Your task to perform on an android device: turn off javascript in the chrome app Image 0: 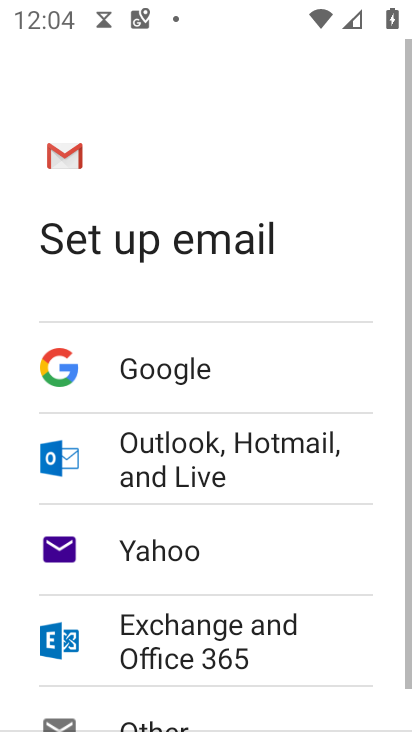
Step 0: press home button
Your task to perform on an android device: turn off javascript in the chrome app Image 1: 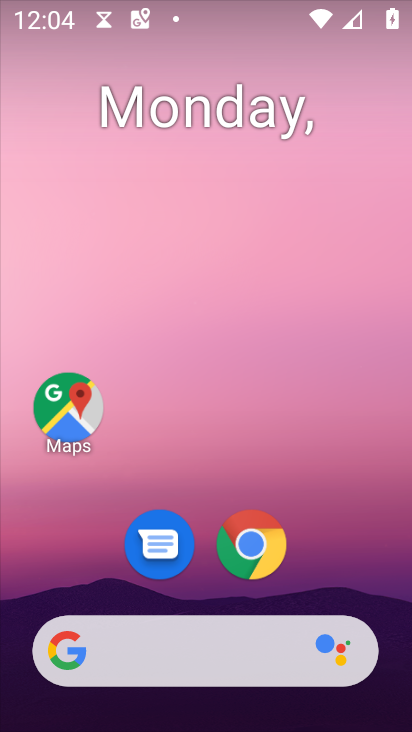
Step 1: click (252, 558)
Your task to perform on an android device: turn off javascript in the chrome app Image 2: 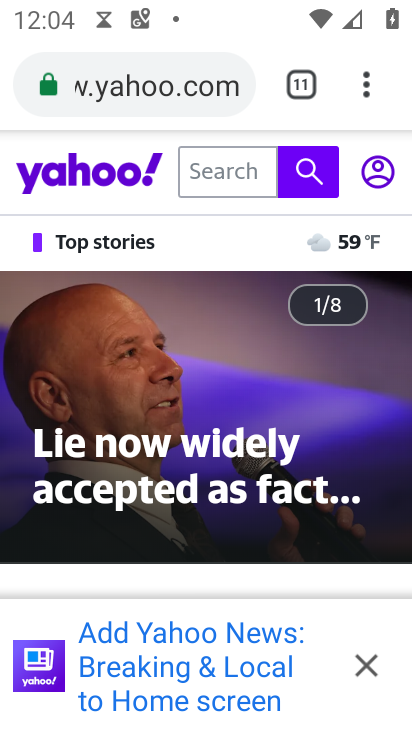
Step 2: click (375, 78)
Your task to perform on an android device: turn off javascript in the chrome app Image 3: 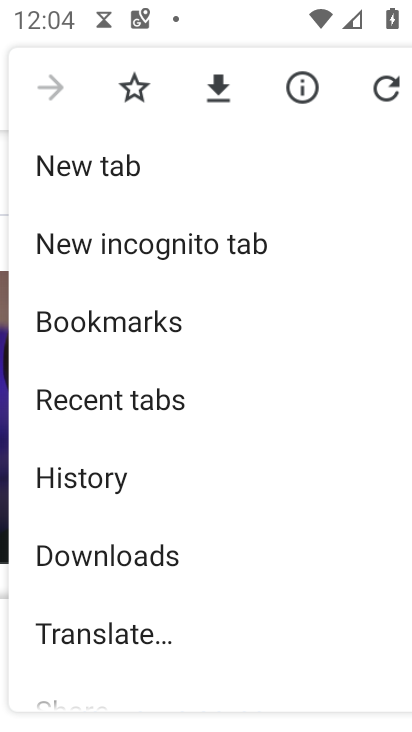
Step 3: drag from (205, 597) to (244, 274)
Your task to perform on an android device: turn off javascript in the chrome app Image 4: 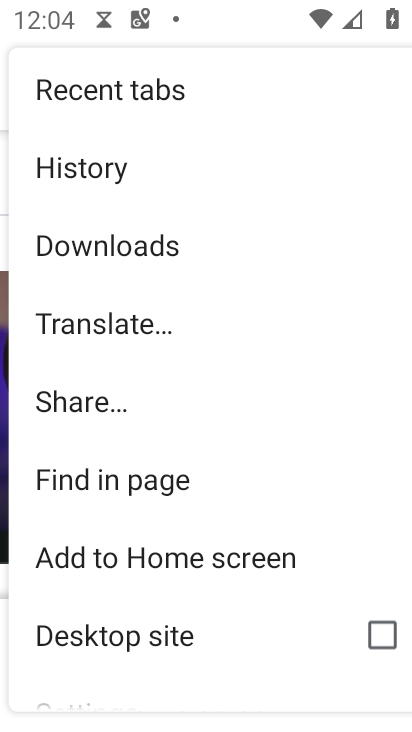
Step 4: drag from (152, 613) to (192, 270)
Your task to perform on an android device: turn off javascript in the chrome app Image 5: 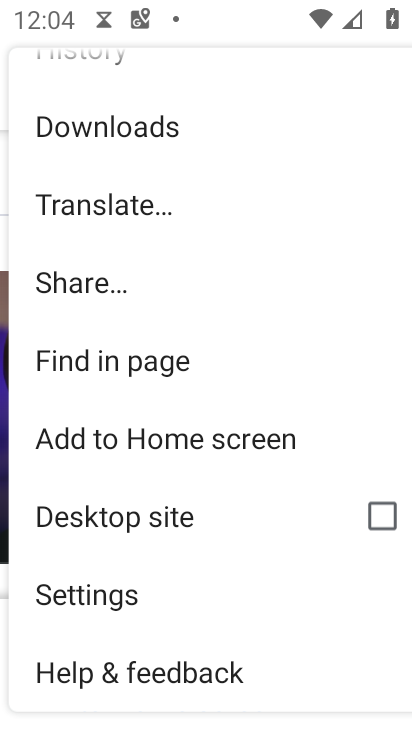
Step 5: click (127, 579)
Your task to perform on an android device: turn off javascript in the chrome app Image 6: 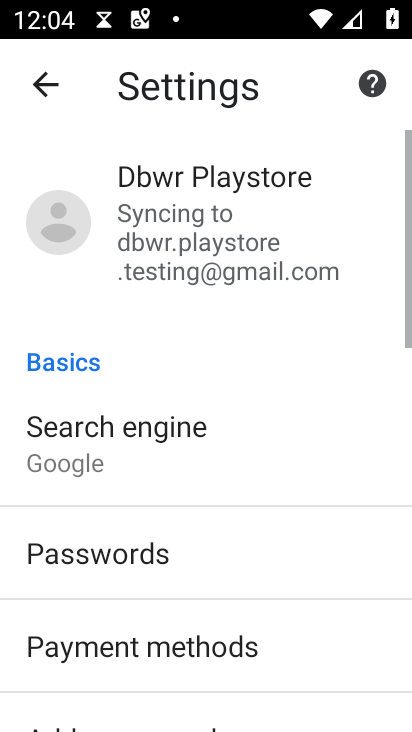
Step 6: drag from (235, 616) to (278, 223)
Your task to perform on an android device: turn off javascript in the chrome app Image 7: 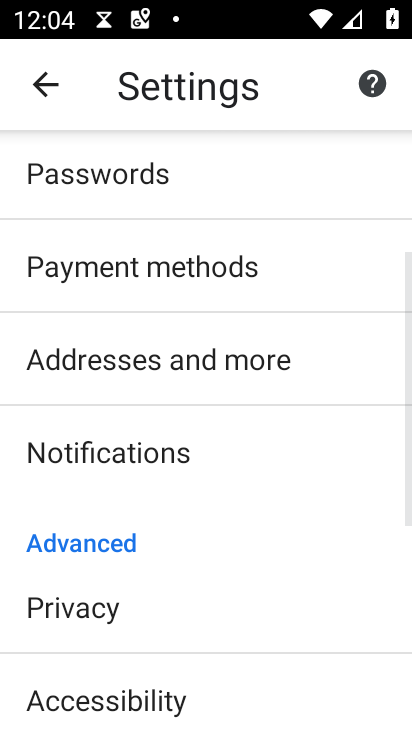
Step 7: drag from (155, 662) to (208, 319)
Your task to perform on an android device: turn off javascript in the chrome app Image 8: 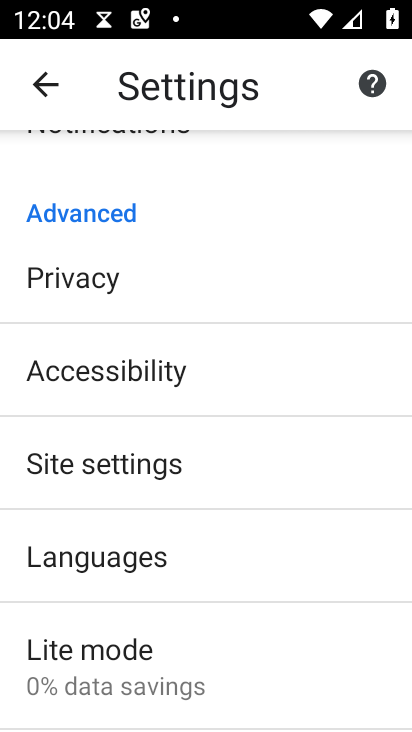
Step 8: click (167, 464)
Your task to perform on an android device: turn off javascript in the chrome app Image 9: 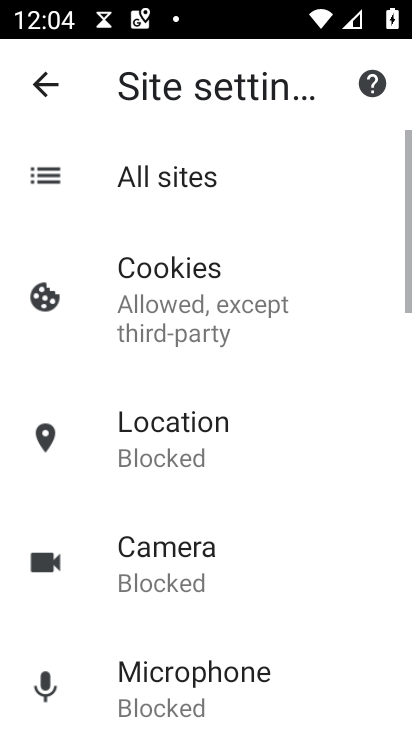
Step 9: drag from (188, 646) to (242, 229)
Your task to perform on an android device: turn off javascript in the chrome app Image 10: 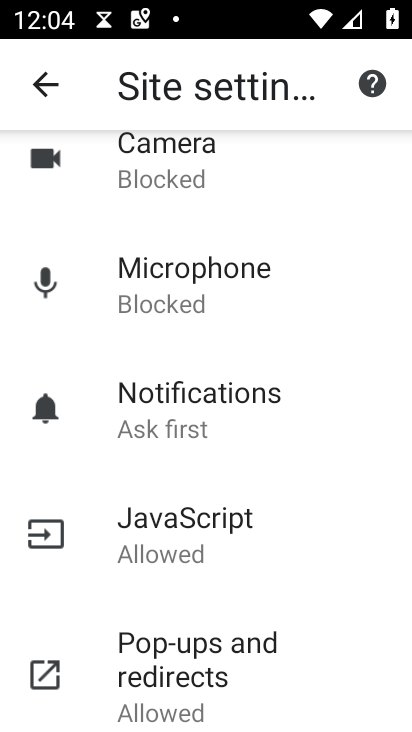
Step 10: click (180, 540)
Your task to perform on an android device: turn off javascript in the chrome app Image 11: 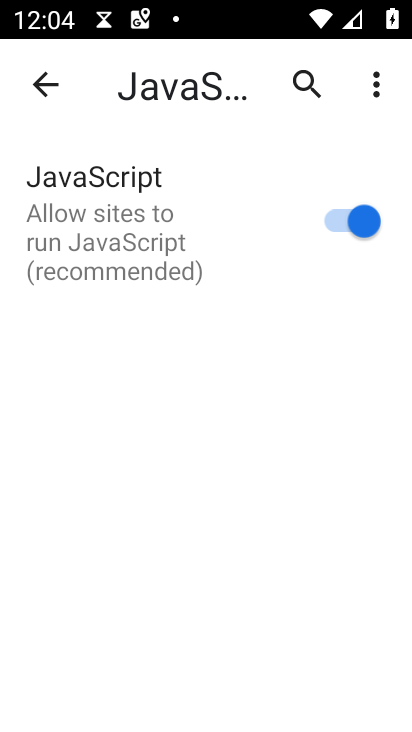
Step 11: click (328, 212)
Your task to perform on an android device: turn off javascript in the chrome app Image 12: 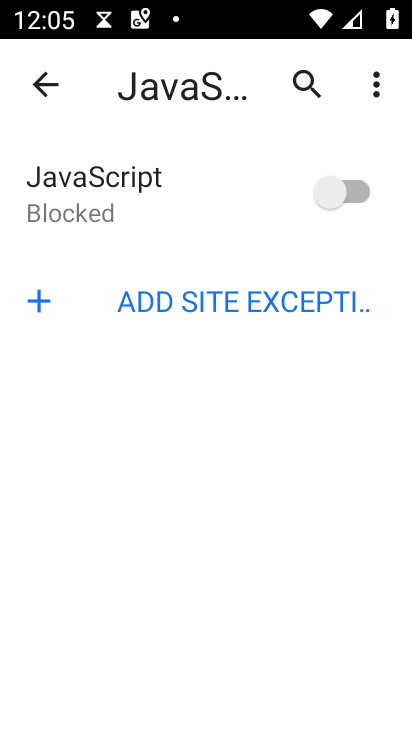
Step 12: task complete